Your task to perform on an android device: Open Android settings Image 0: 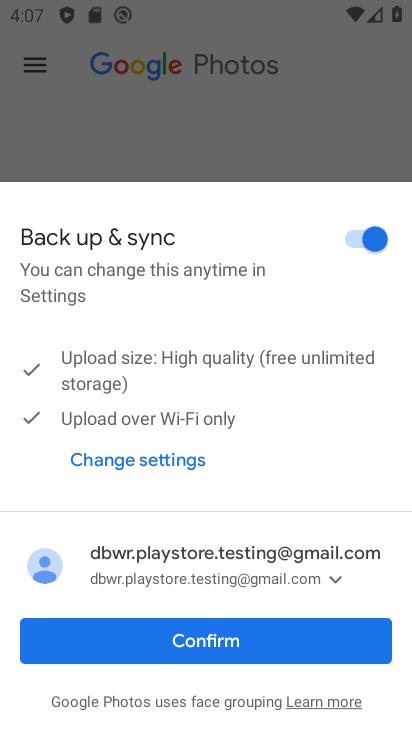
Step 0: press home button
Your task to perform on an android device: Open Android settings Image 1: 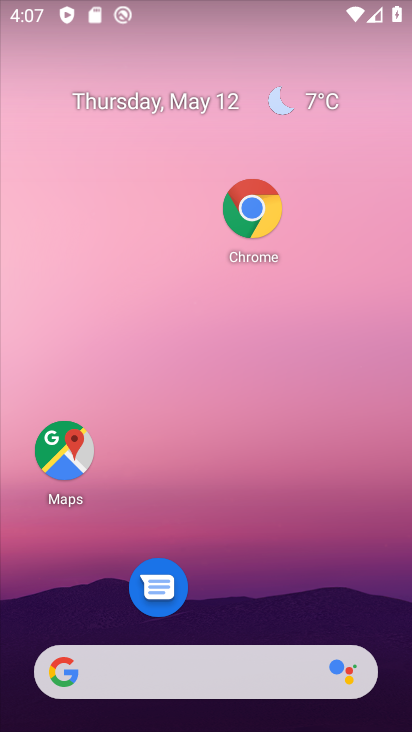
Step 1: drag from (240, 603) to (202, 191)
Your task to perform on an android device: Open Android settings Image 2: 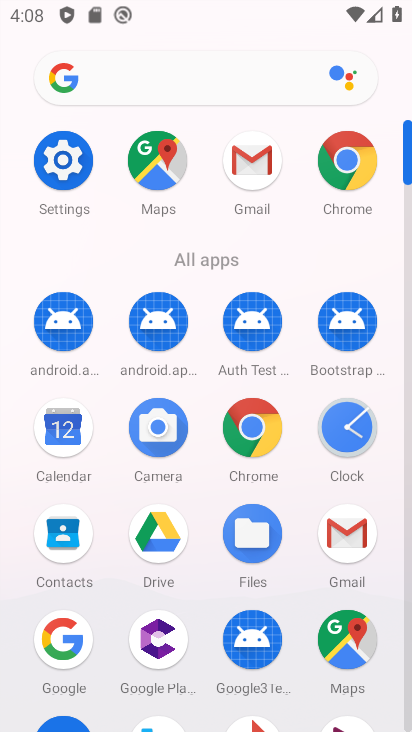
Step 2: click (73, 198)
Your task to perform on an android device: Open Android settings Image 3: 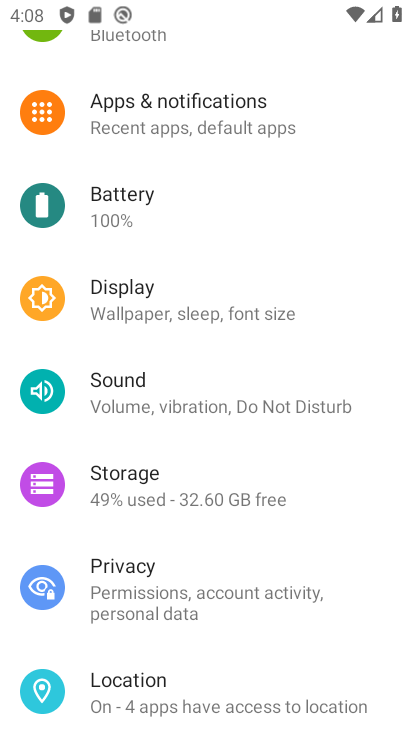
Step 3: drag from (170, 313) to (174, 246)
Your task to perform on an android device: Open Android settings Image 4: 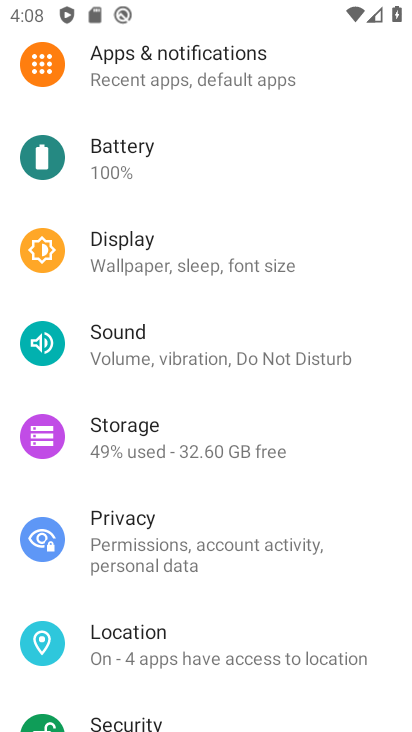
Step 4: drag from (229, 612) to (229, 217)
Your task to perform on an android device: Open Android settings Image 5: 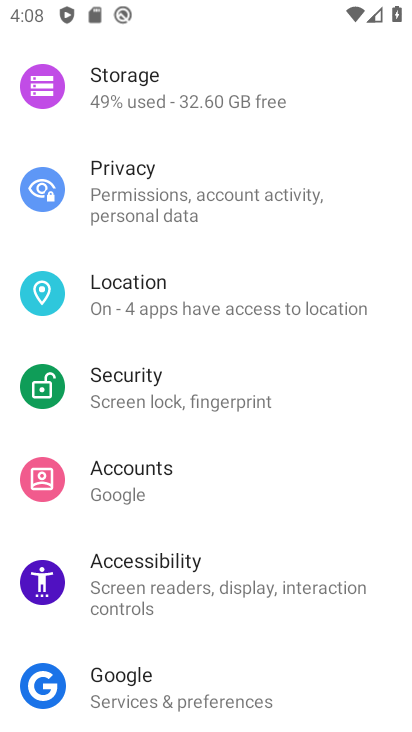
Step 5: drag from (245, 645) to (265, 253)
Your task to perform on an android device: Open Android settings Image 6: 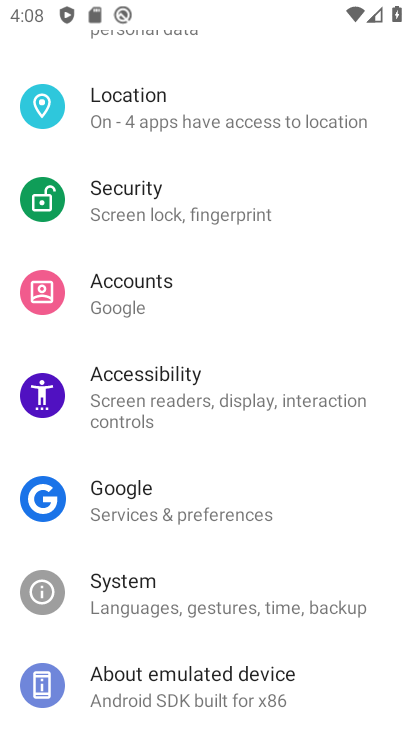
Step 6: click (111, 692)
Your task to perform on an android device: Open Android settings Image 7: 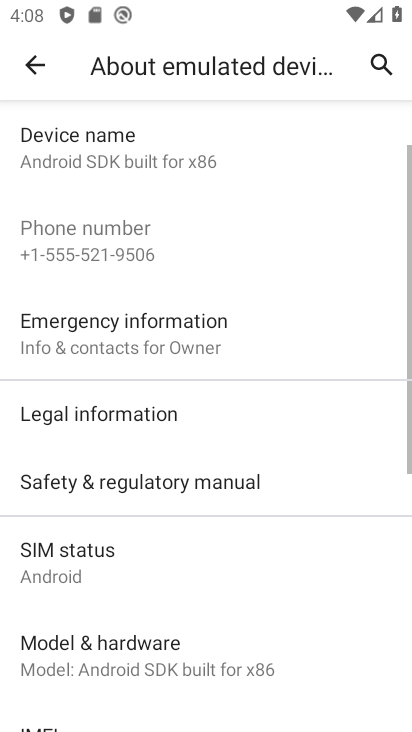
Step 7: drag from (131, 675) to (167, 378)
Your task to perform on an android device: Open Android settings Image 8: 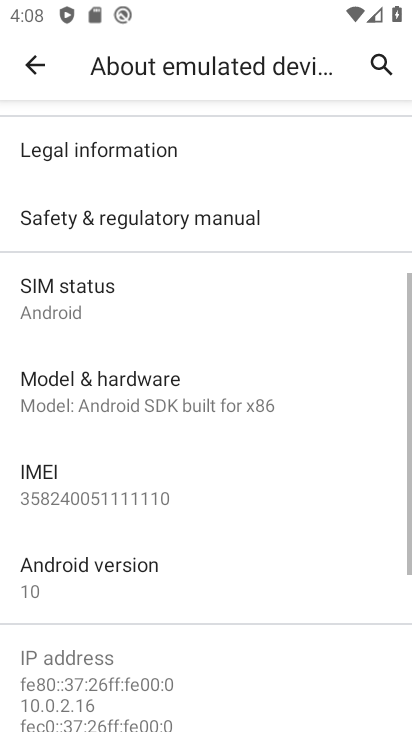
Step 8: drag from (143, 636) to (227, 382)
Your task to perform on an android device: Open Android settings Image 9: 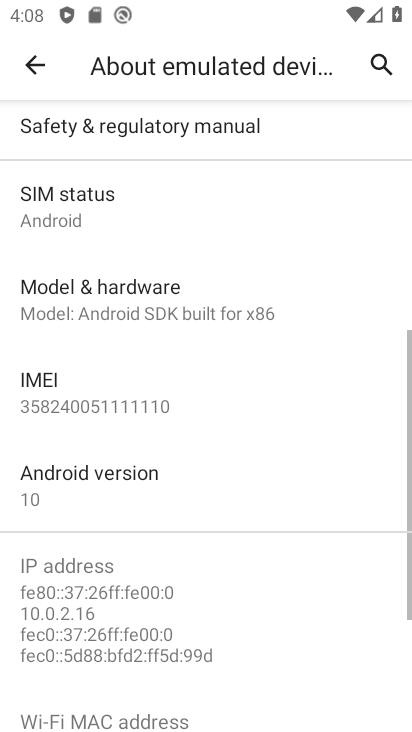
Step 9: click (70, 500)
Your task to perform on an android device: Open Android settings Image 10: 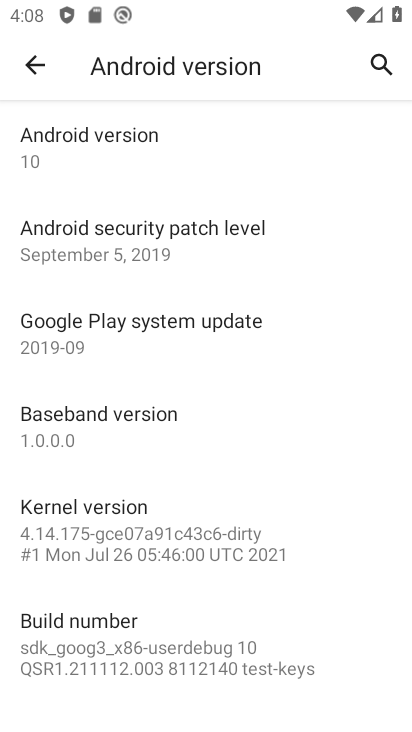
Step 10: task complete